Your task to perform on an android device: toggle wifi Image 0: 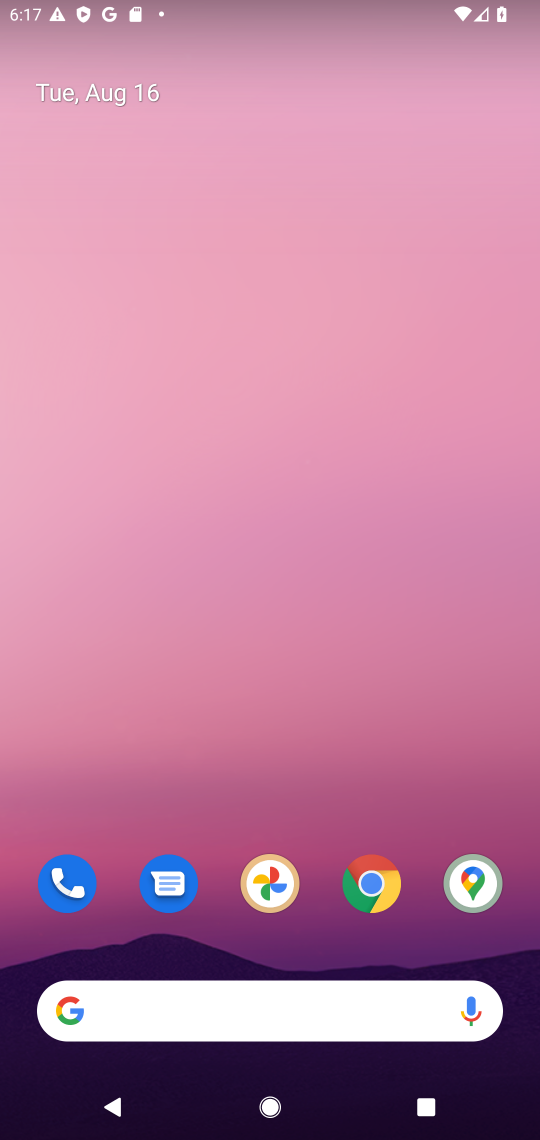
Step 0: drag from (322, 1027) to (364, 370)
Your task to perform on an android device: toggle wifi Image 1: 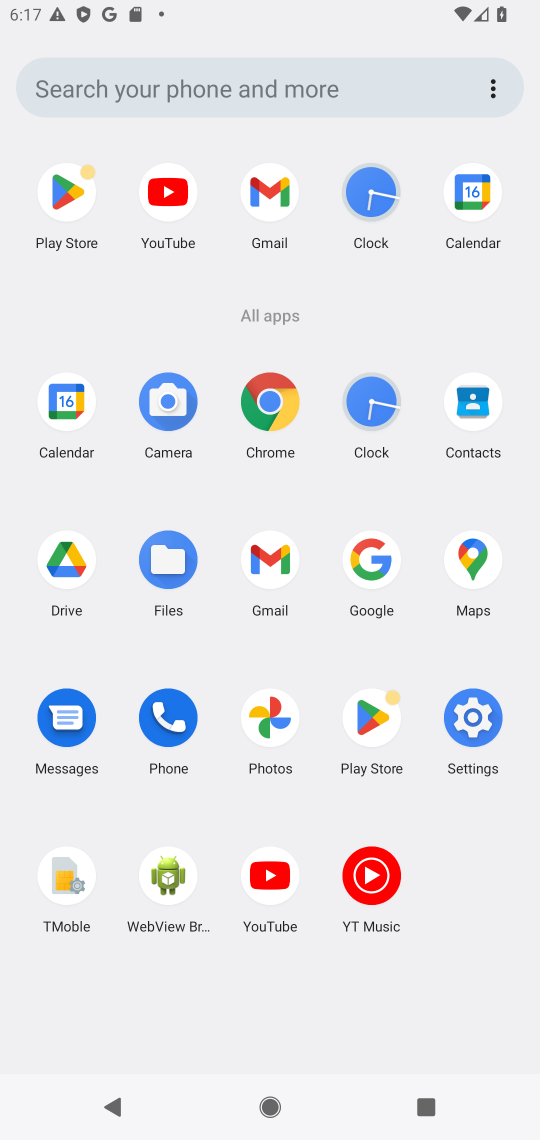
Step 1: click (468, 723)
Your task to perform on an android device: toggle wifi Image 2: 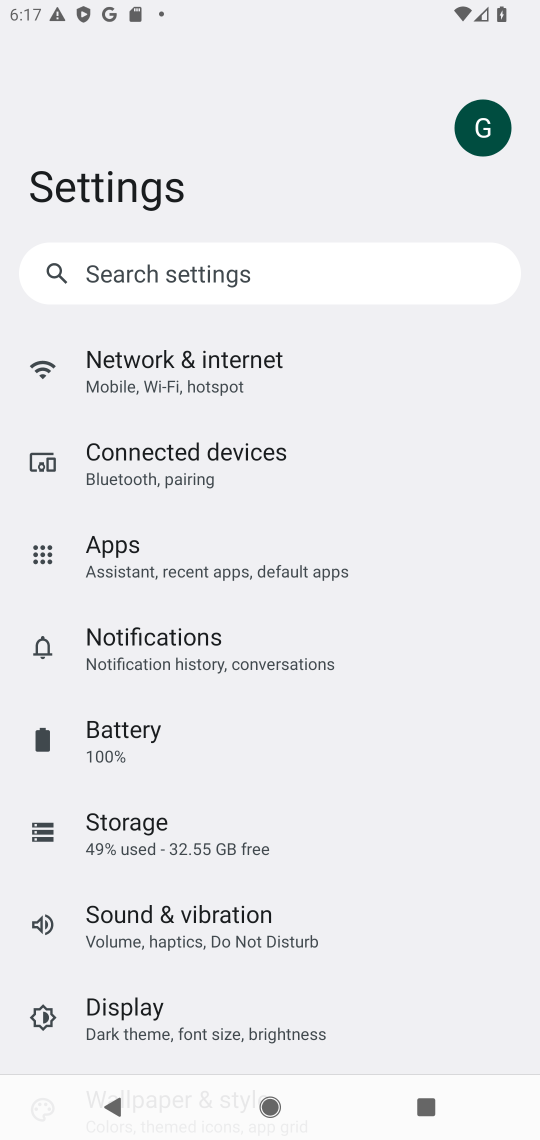
Step 2: click (195, 392)
Your task to perform on an android device: toggle wifi Image 3: 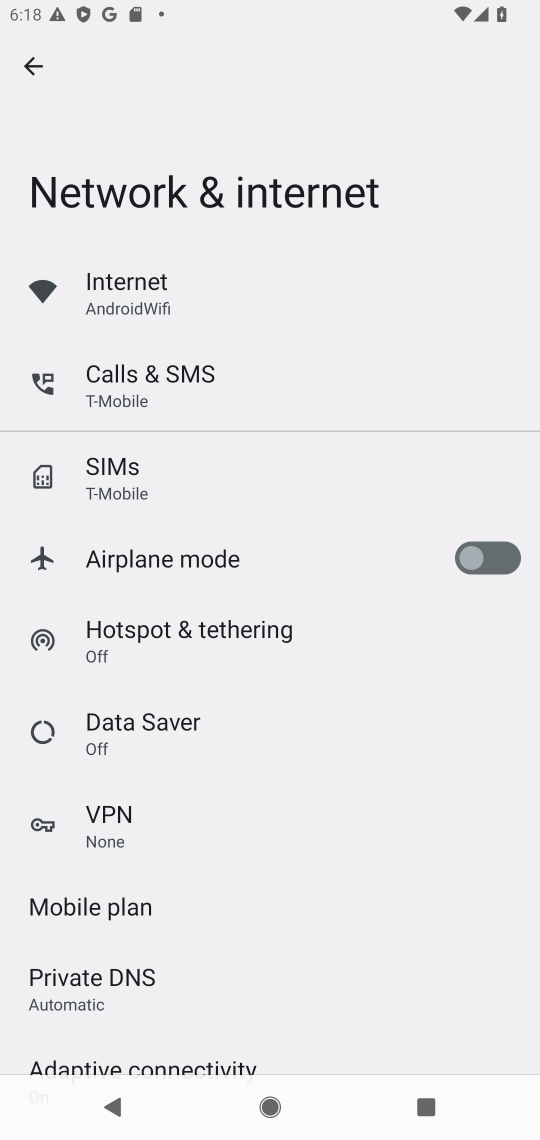
Step 3: click (155, 302)
Your task to perform on an android device: toggle wifi Image 4: 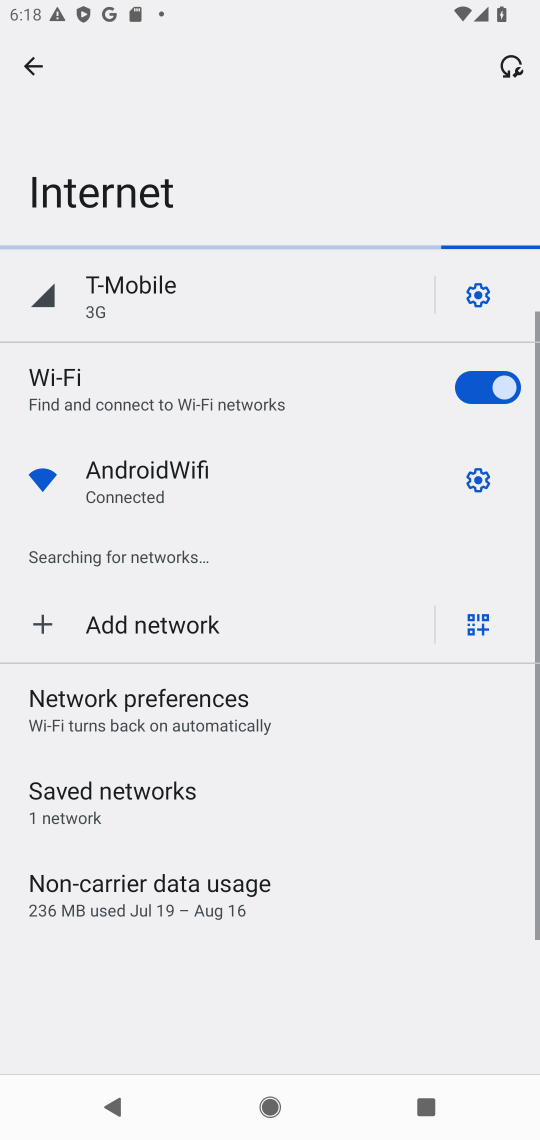
Step 4: click (474, 397)
Your task to perform on an android device: toggle wifi Image 5: 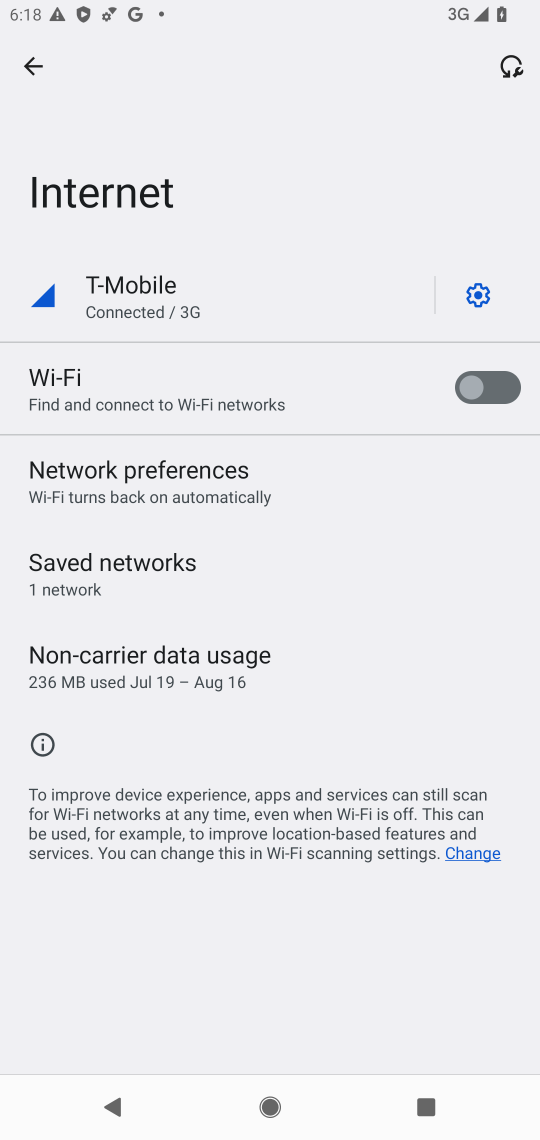
Step 5: task complete